Your task to perform on an android device: Open ESPN.com Image 0: 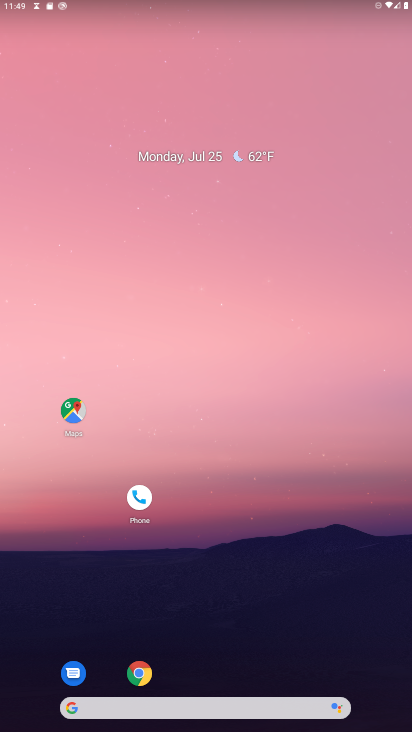
Step 0: click (66, 705)
Your task to perform on an android device: Open ESPN.com Image 1: 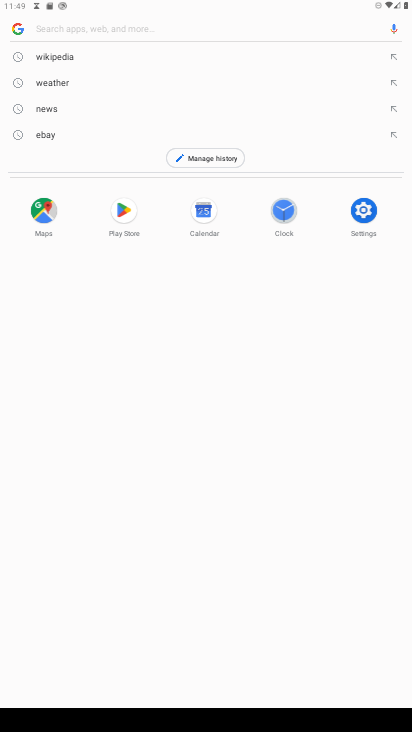
Step 1: type "ESPN.com"
Your task to perform on an android device: Open ESPN.com Image 2: 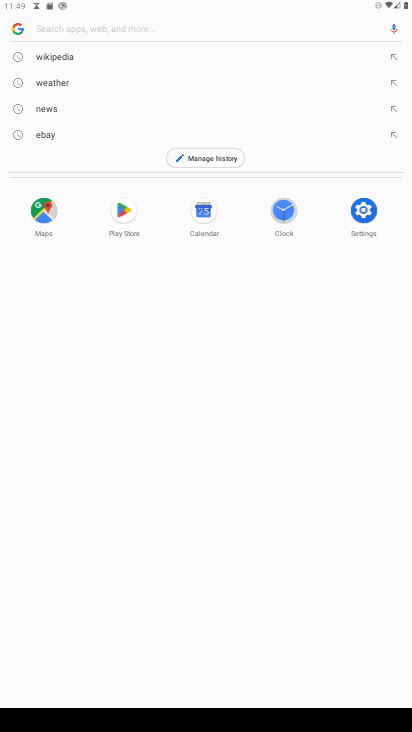
Step 2: click (81, 26)
Your task to perform on an android device: Open ESPN.com Image 3: 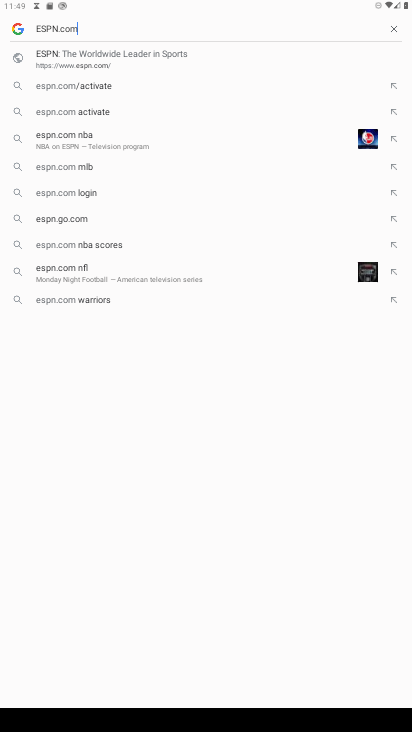
Step 3: press enter
Your task to perform on an android device: Open ESPN.com Image 4: 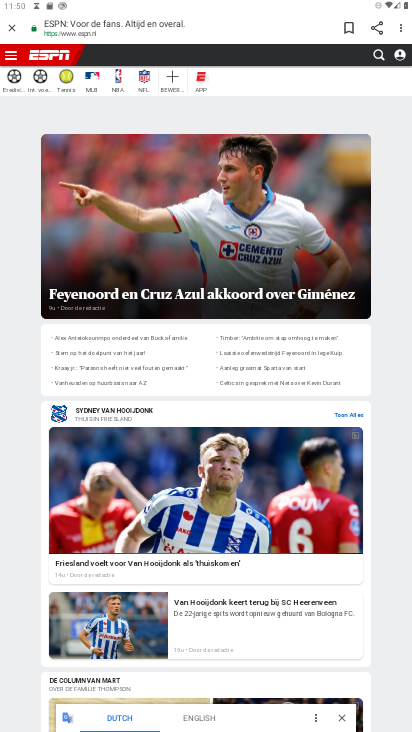
Step 4: task complete